Your task to perform on an android device: Add razer kraken to the cart on ebay.com Image 0: 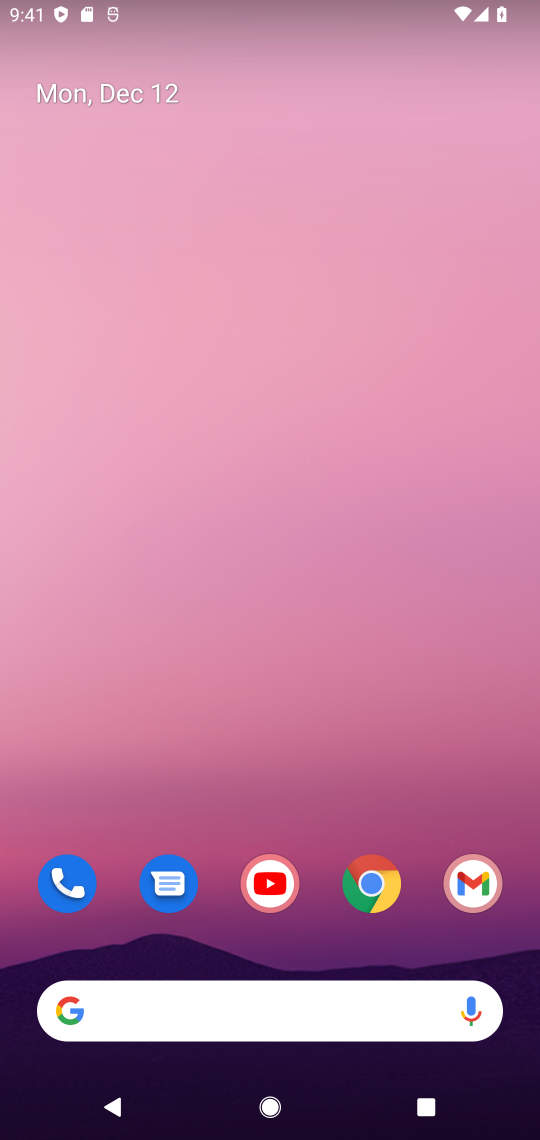
Step 0: click (271, 1014)
Your task to perform on an android device: Add razer kraken to the cart on ebay.com Image 1: 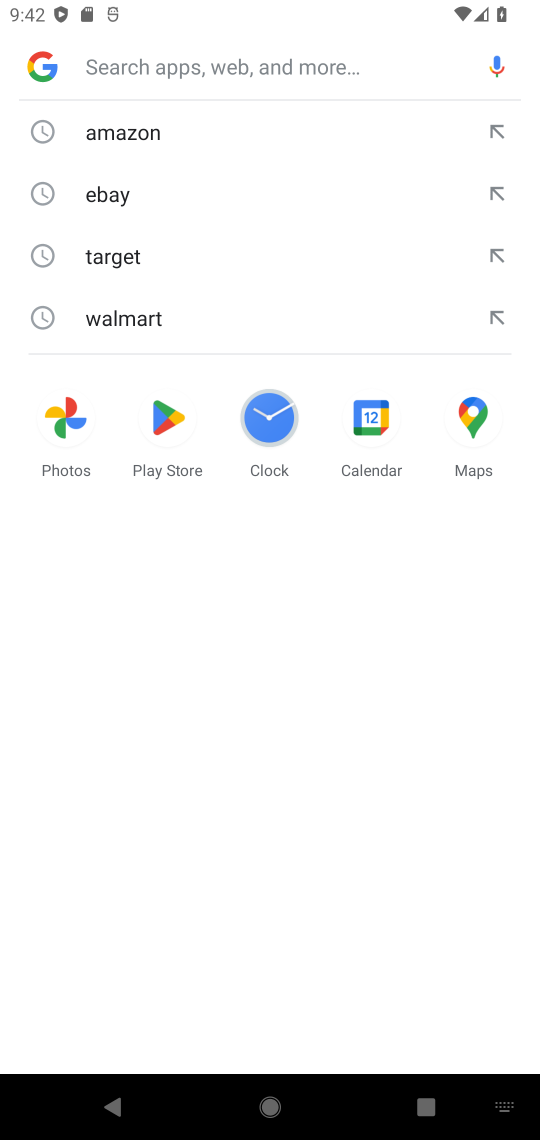
Step 1: type "ebay.com"
Your task to perform on an android device: Add razer kraken to the cart on ebay.com Image 2: 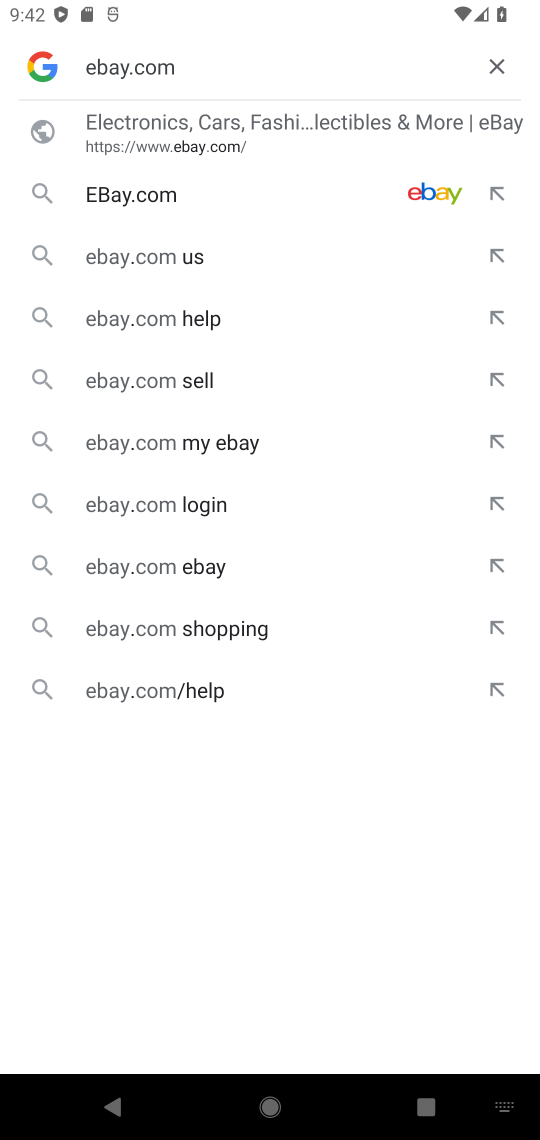
Step 2: click (167, 204)
Your task to perform on an android device: Add razer kraken to the cart on ebay.com Image 3: 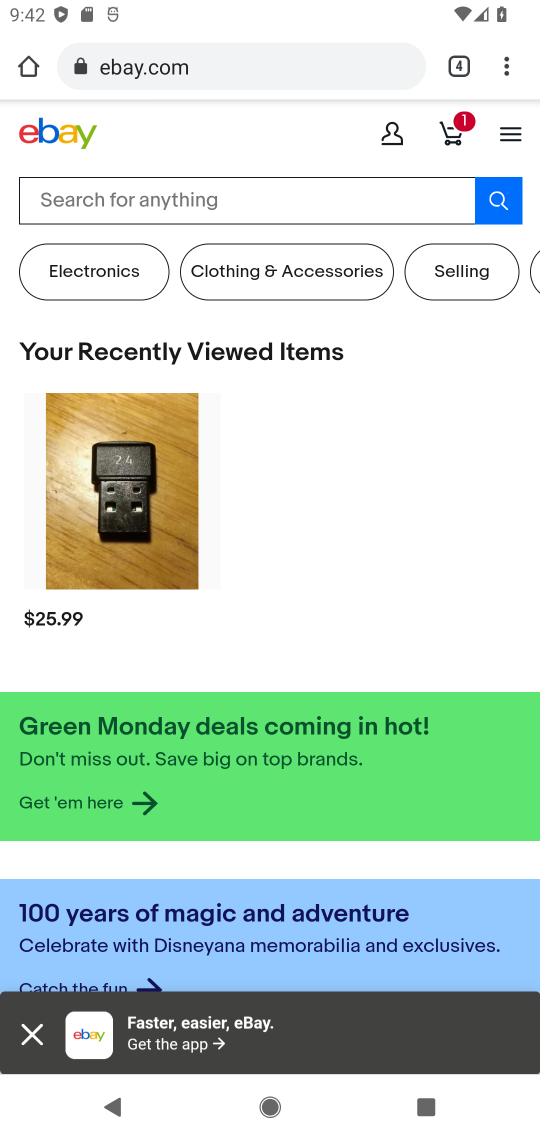
Step 3: click (155, 195)
Your task to perform on an android device: Add razer kraken to the cart on ebay.com Image 4: 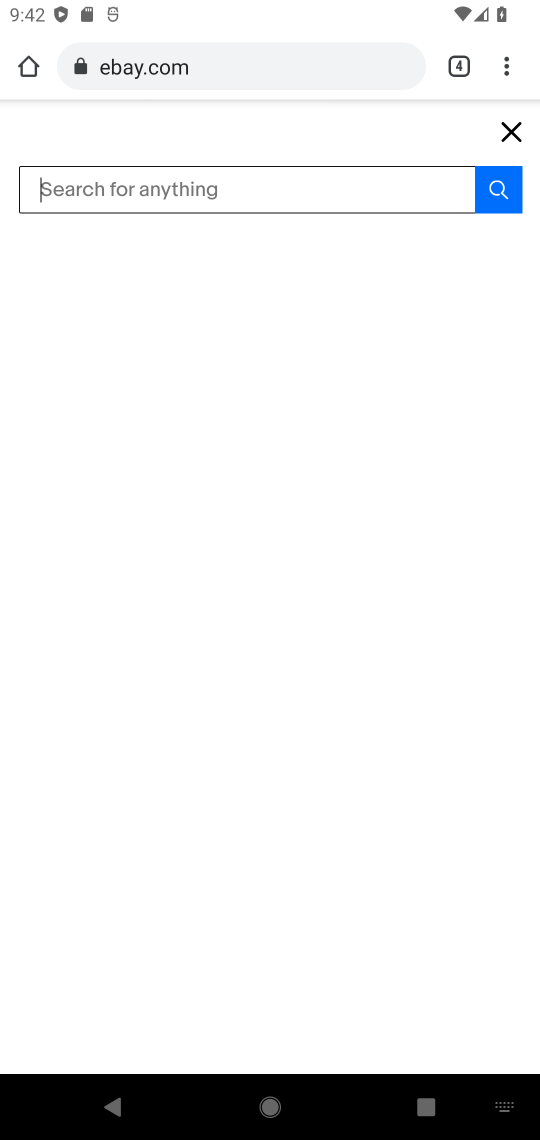
Step 4: type "ebay.com"
Your task to perform on an android device: Add razer kraken to the cart on ebay.com Image 5: 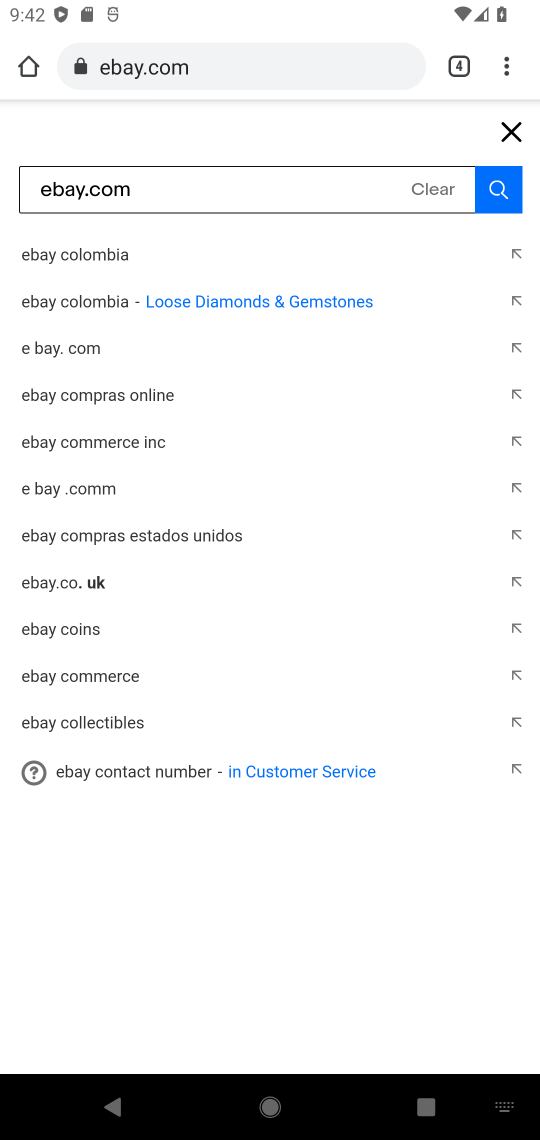
Step 5: click (440, 178)
Your task to perform on an android device: Add razer kraken to the cart on ebay.com Image 6: 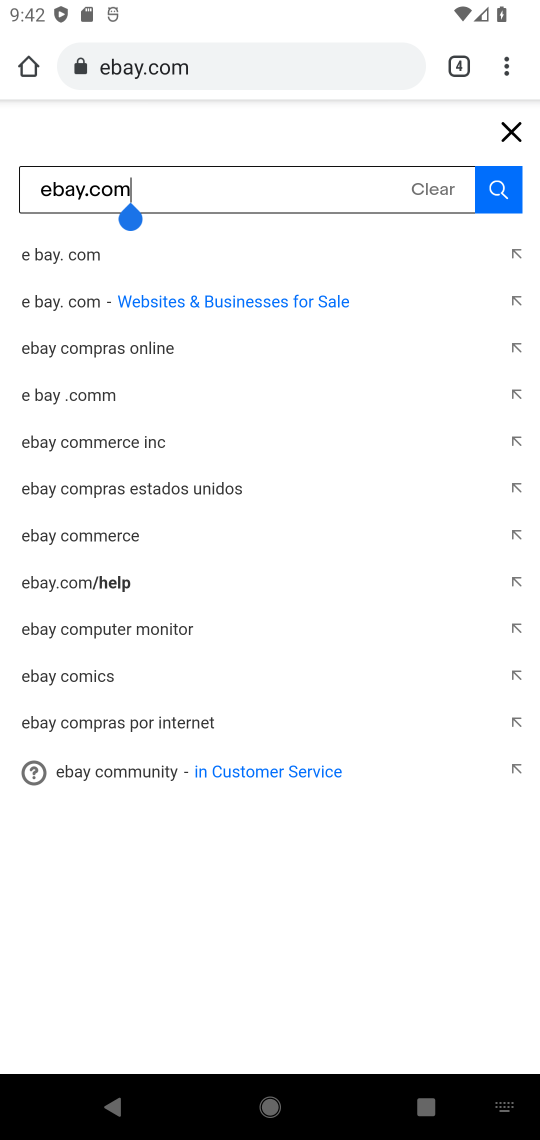
Step 6: click (432, 184)
Your task to perform on an android device: Add razer kraken to the cart on ebay.com Image 7: 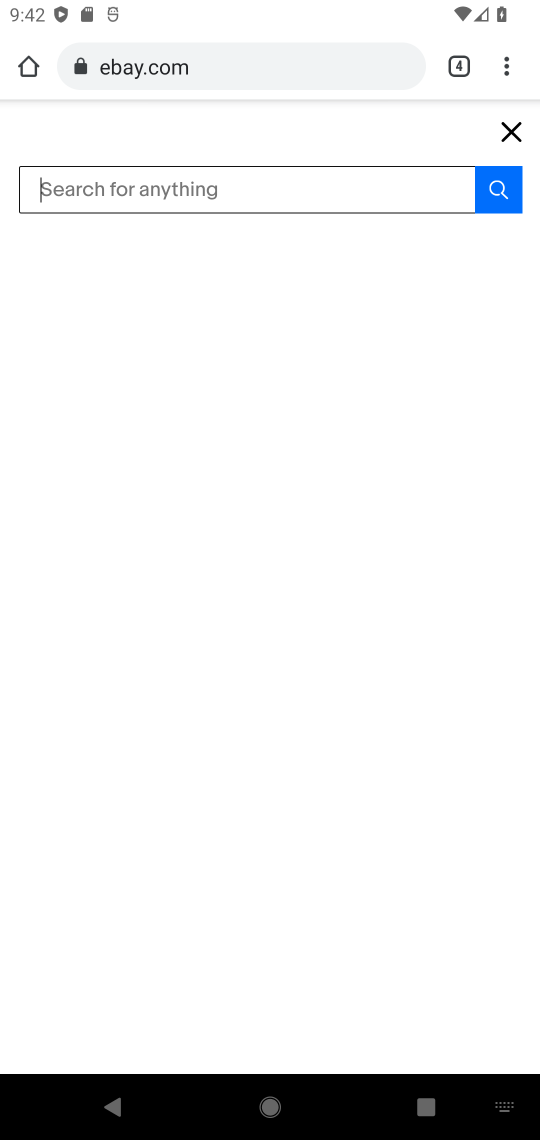
Step 7: type "razer kraken"
Your task to perform on an android device: Add razer kraken to the cart on ebay.com Image 8: 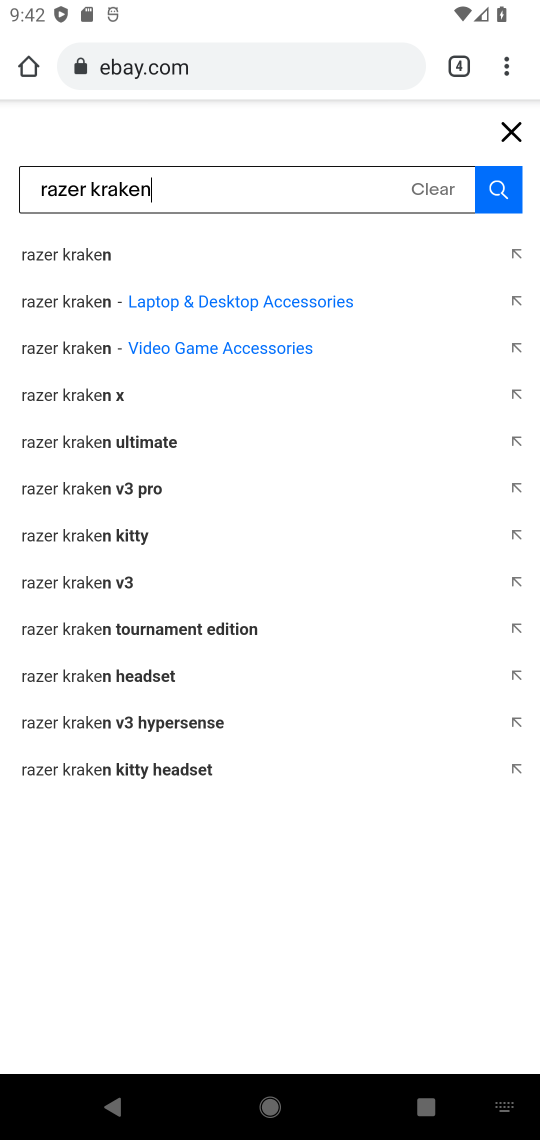
Step 8: click (85, 257)
Your task to perform on an android device: Add razer kraken to the cart on ebay.com Image 9: 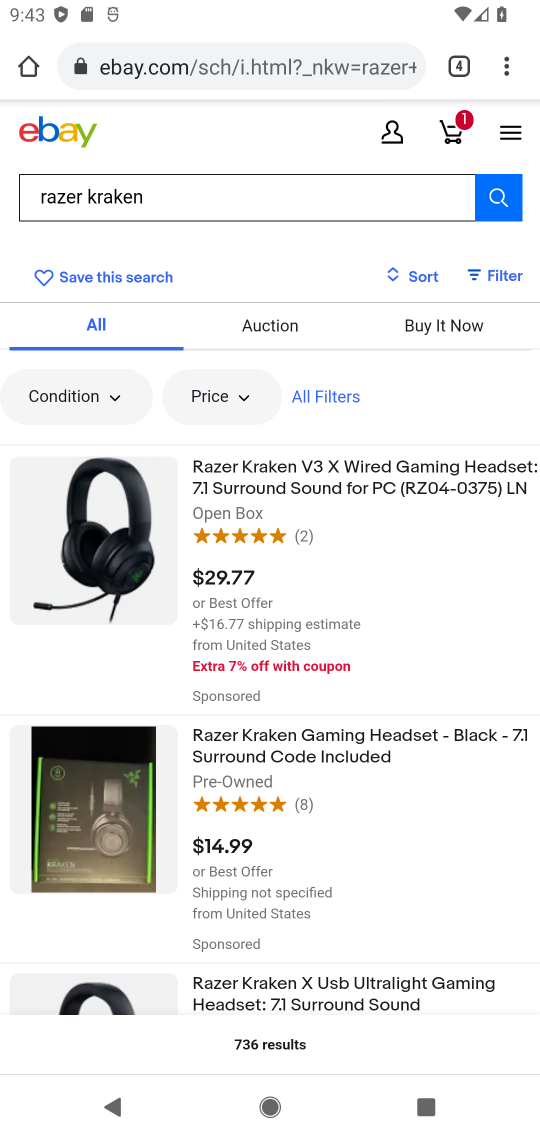
Step 9: click (329, 516)
Your task to perform on an android device: Add razer kraken to the cart on ebay.com Image 10: 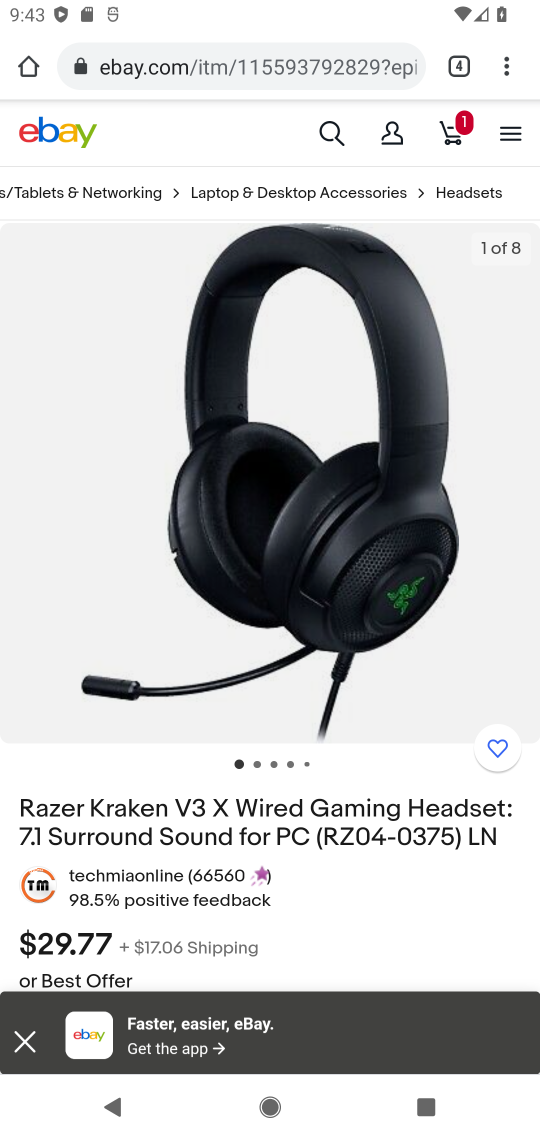
Step 10: drag from (203, 802) to (203, 551)
Your task to perform on an android device: Add razer kraken to the cart on ebay.com Image 11: 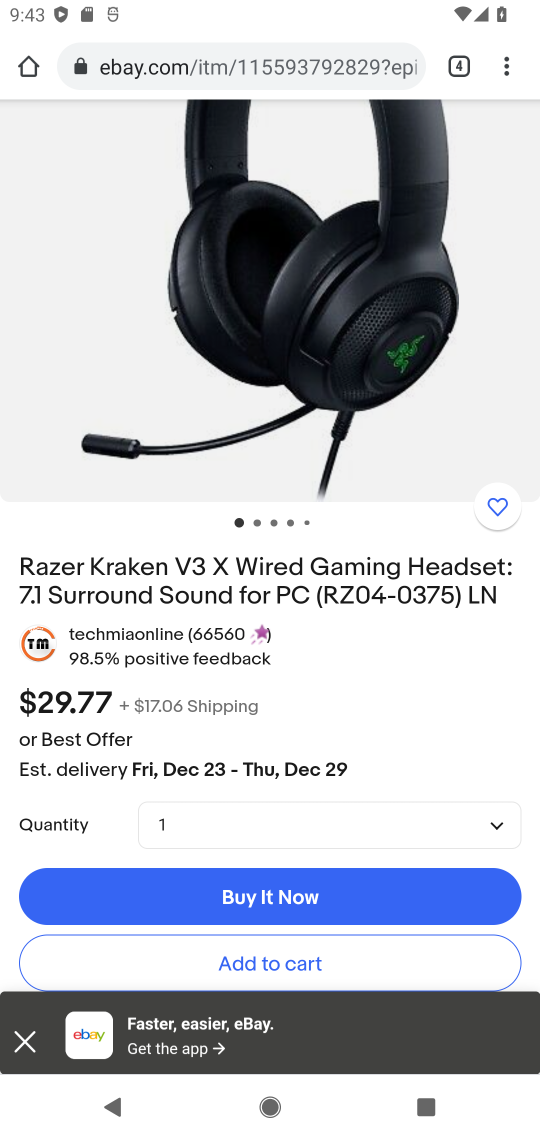
Step 11: click (272, 963)
Your task to perform on an android device: Add razer kraken to the cart on ebay.com Image 12: 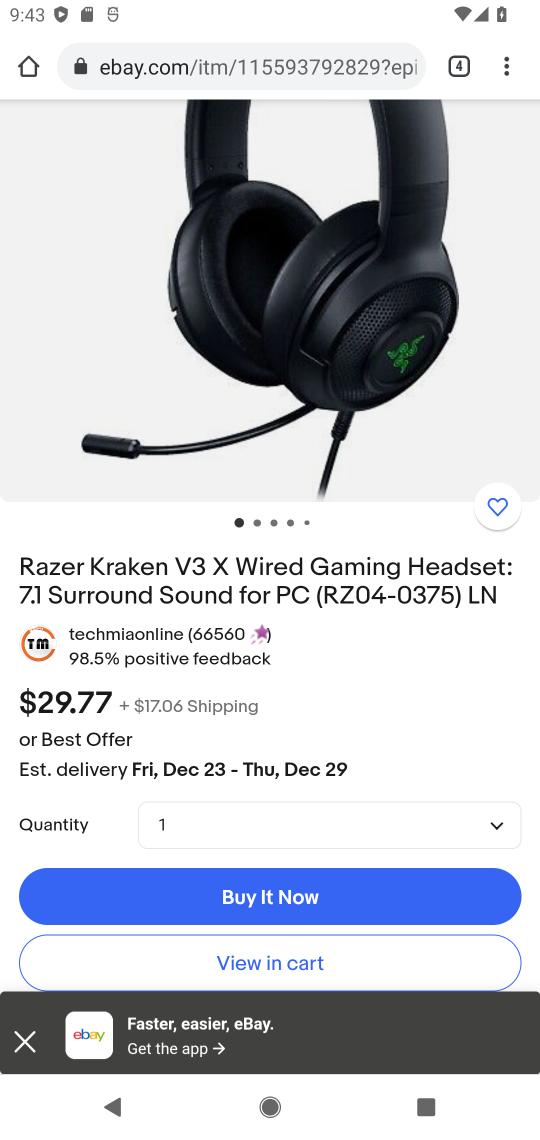
Step 12: task complete